Your task to perform on an android device: make emails show in primary in the gmail app Image 0: 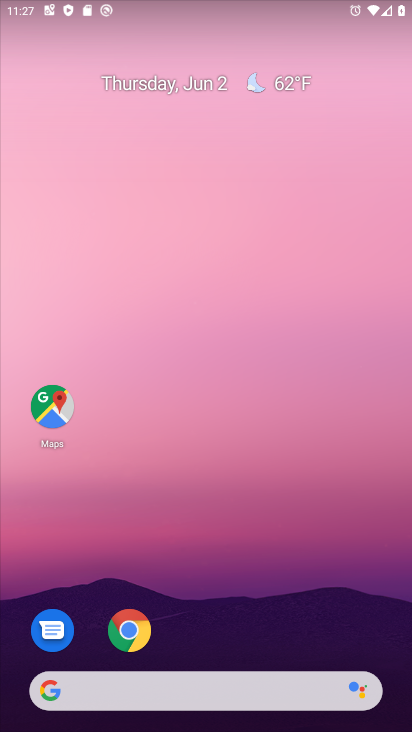
Step 0: press home button
Your task to perform on an android device: make emails show in primary in the gmail app Image 1: 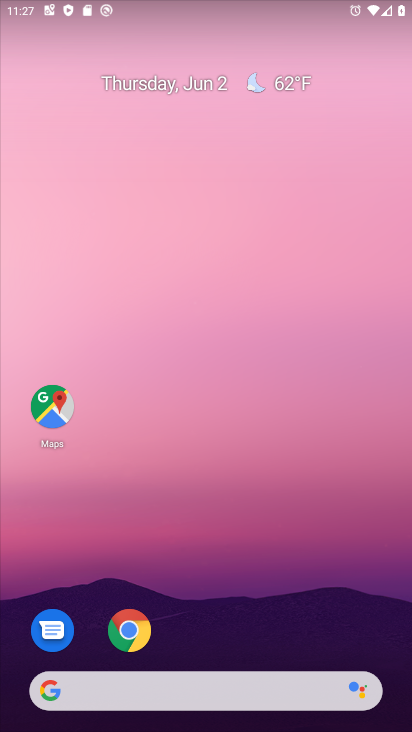
Step 1: drag from (145, 678) to (284, 189)
Your task to perform on an android device: make emails show in primary in the gmail app Image 2: 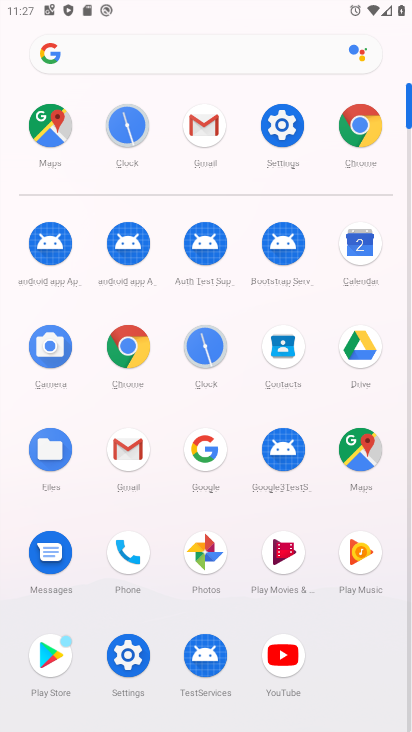
Step 2: click (204, 130)
Your task to perform on an android device: make emails show in primary in the gmail app Image 3: 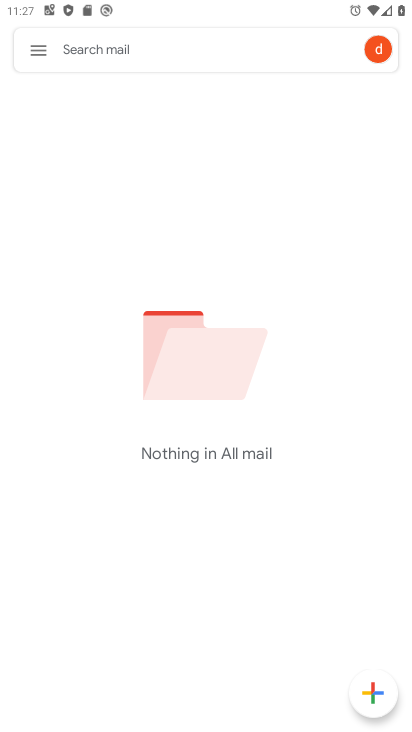
Step 3: click (39, 47)
Your task to perform on an android device: make emails show in primary in the gmail app Image 4: 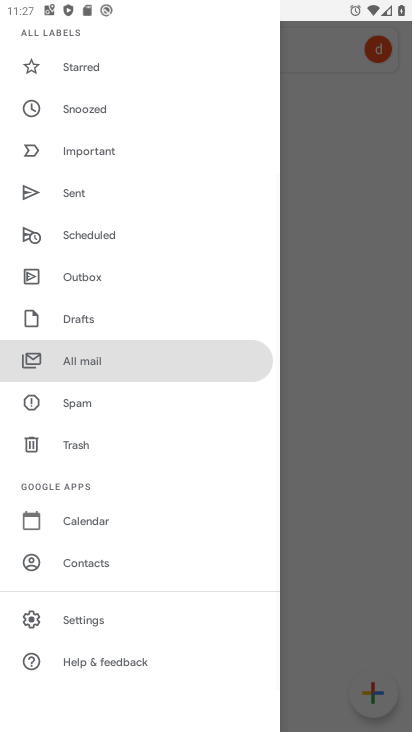
Step 4: click (84, 612)
Your task to perform on an android device: make emails show in primary in the gmail app Image 5: 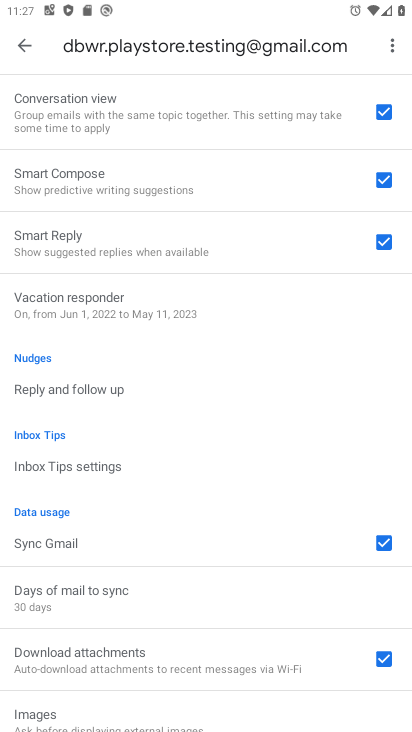
Step 5: task complete